Your task to perform on an android device: turn off data saver in the chrome app Image 0: 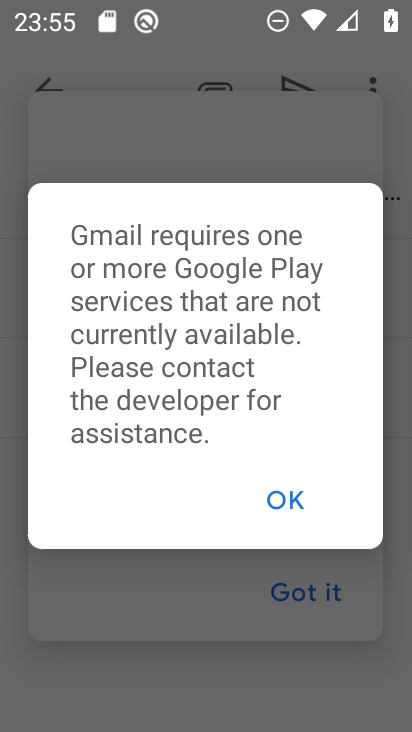
Step 0: press home button
Your task to perform on an android device: turn off data saver in the chrome app Image 1: 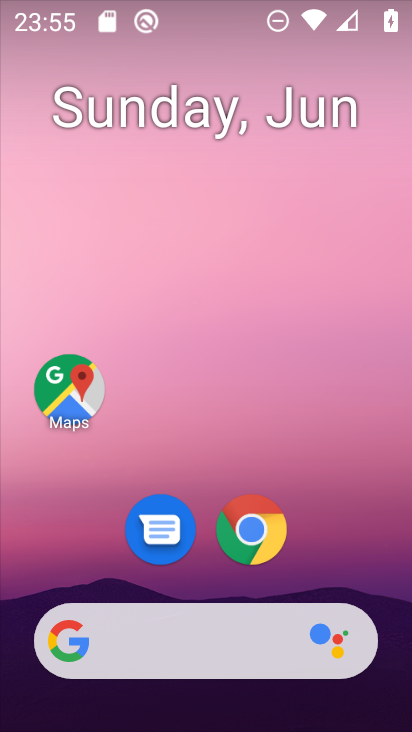
Step 1: click (255, 532)
Your task to perform on an android device: turn off data saver in the chrome app Image 2: 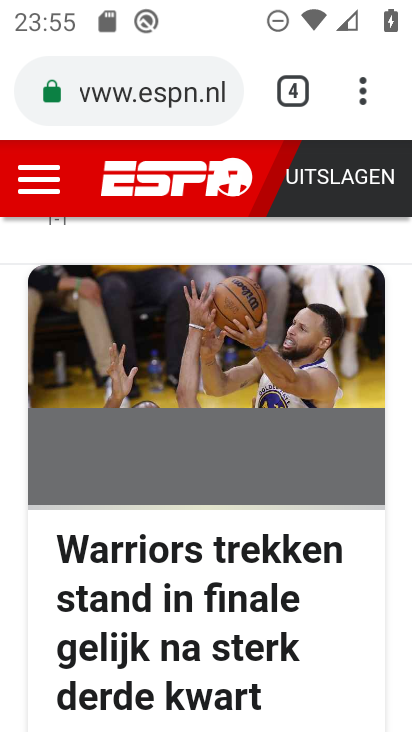
Step 2: click (357, 92)
Your task to perform on an android device: turn off data saver in the chrome app Image 3: 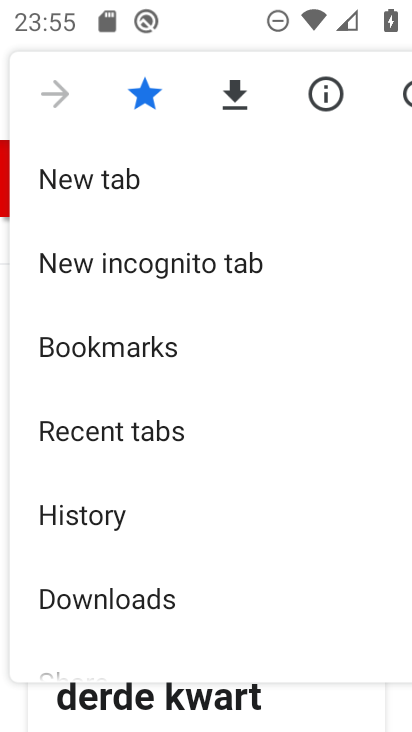
Step 3: drag from (215, 630) to (288, 276)
Your task to perform on an android device: turn off data saver in the chrome app Image 4: 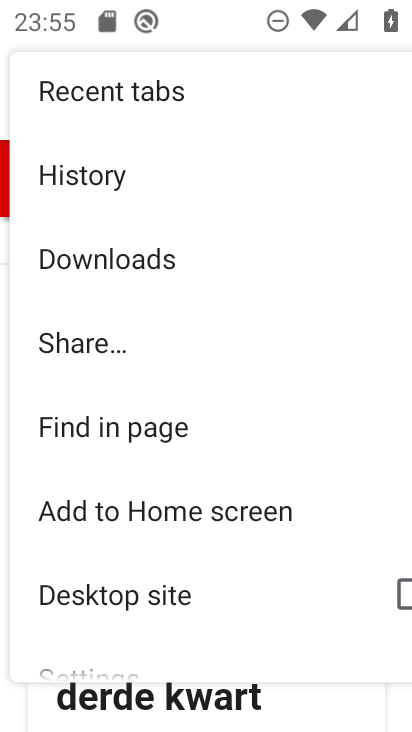
Step 4: drag from (238, 618) to (281, 200)
Your task to perform on an android device: turn off data saver in the chrome app Image 5: 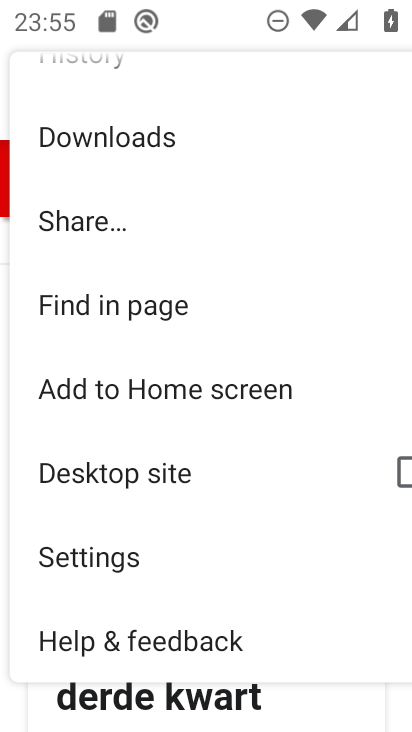
Step 5: click (117, 553)
Your task to perform on an android device: turn off data saver in the chrome app Image 6: 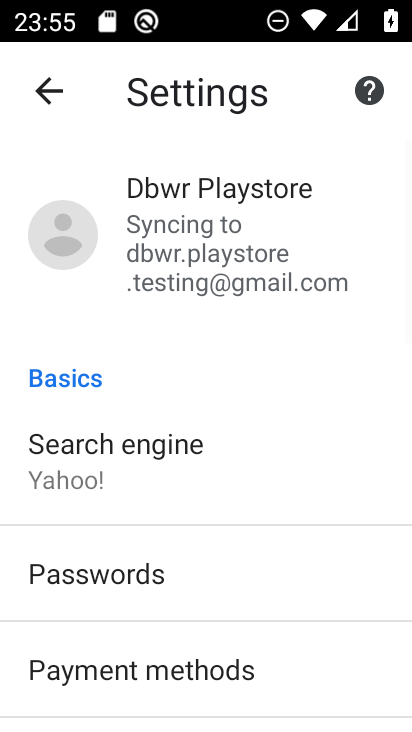
Step 6: drag from (273, 640) to (252, 117)
Your task to perform on an android device: turn off data saver in the chrome app Image 7: 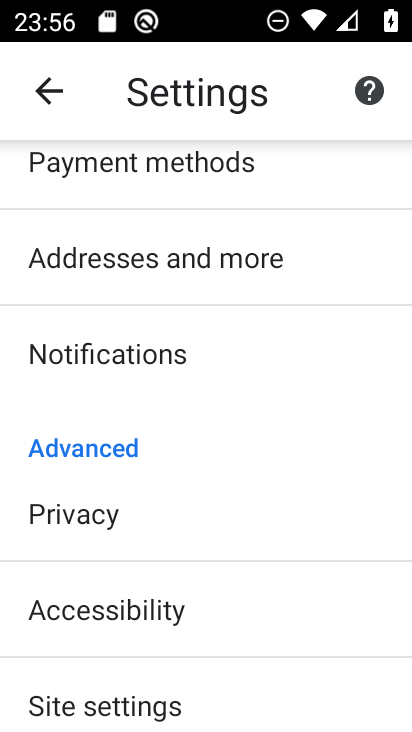
Step 7: drag from (239, 625) to (269, 164)
Your task to perform on an android device: turn off data saver in the chrome app Image 8: 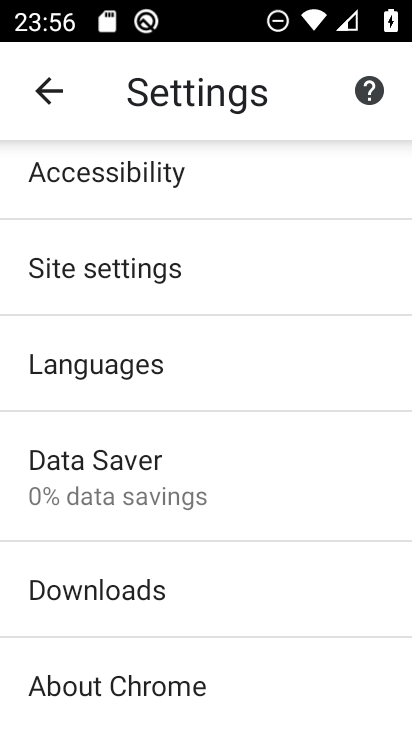
Step 8: click (89, 468)
Your task to perform on an android device: turn off data saver in the chrome app Image 9: 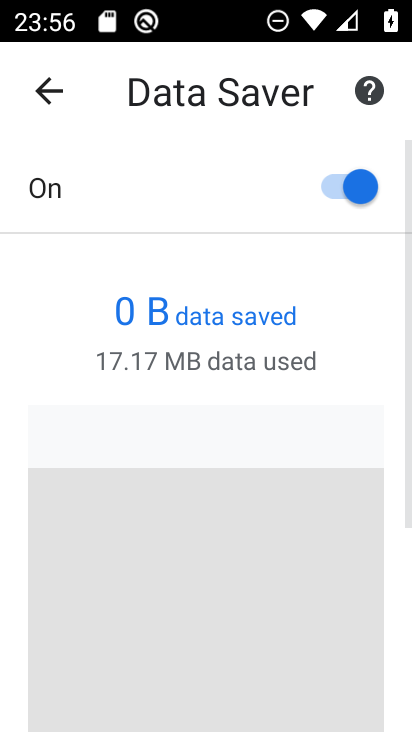
Step 9: click (331, 187)
Your task to perform on an android device: turn off data saver in the chrome app Image 10: 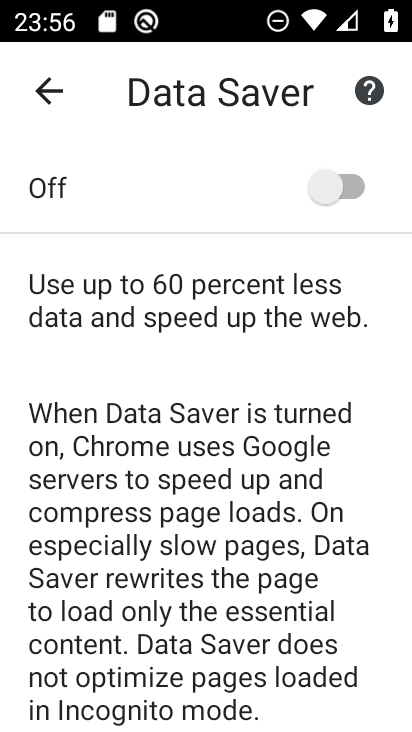
Step 10: task complete